Your task to perform on an android device: see tabs open on other devices in the chrome app Image 0: 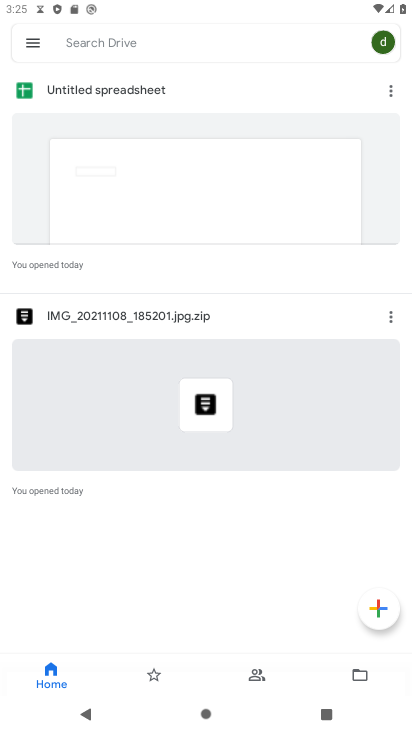
Step 0: press home button
Your task to perform on an android device: see tabs open on other devices in the chrome app Image 1: 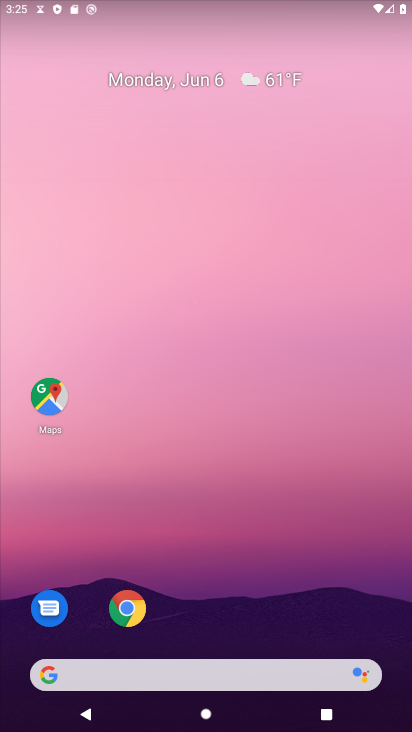
Step 1: click (121, 609)
Your task to perform on an android device: see tabs open on other devices in the chrome app Image 2: 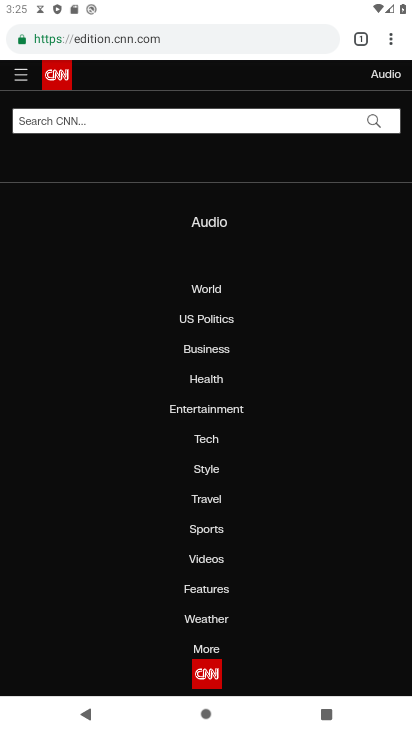
Step 2: click (389, 34)
Your task to perform on an android device: see tabs open on other devices in the chrome app Image 3: 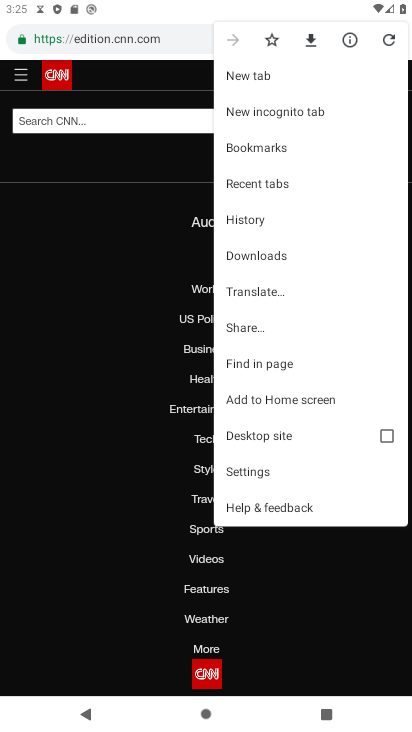
Step 3: click (276, 180)
Your task to perform on an android device: see tabs open on other devices in the chrome app Image 4: 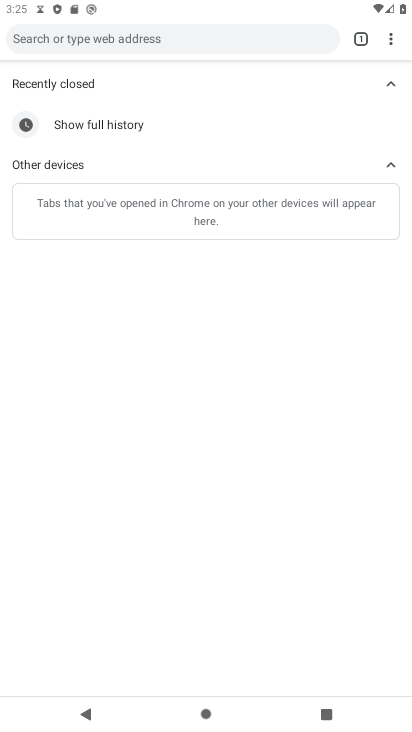
Step 4: task complete